Your task to perform on an android device: toggle priority inbox in the gmail app Image 0: 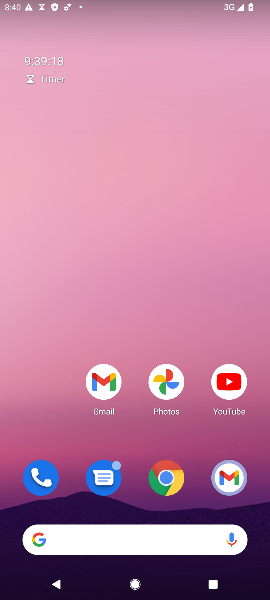
Step 0: drag from (209, 340) to (147, 44)
Your task to perform on an android device: toggle priority inbox in the gmail app Image 1: 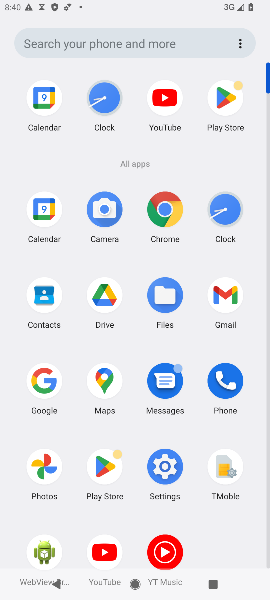
Step 1: click (211, 287)
Your task to perform on an android device: toggle priority inbox in the gmail app Image 2: 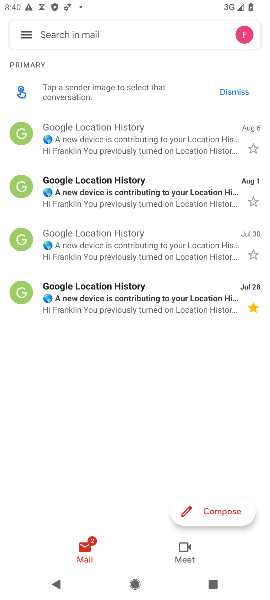
Step 2: click (19, 38)
Your task to perform on an android device: toggle priority inbox in the gmail app Image 3: 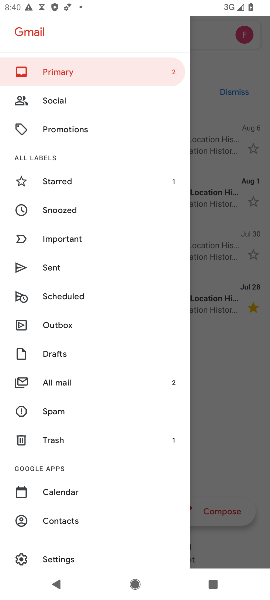
Step 3: click (68, 557)
Your task to perform on an android device: toggle priority inbox in the gmail app Image 4: 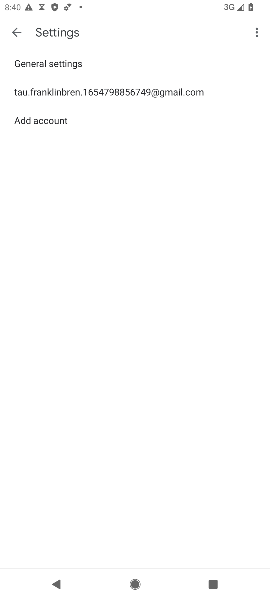
Step 4: click (98, 93)
Your task to perform on an android device: toggle priority inbox in the gmail app Image 5: 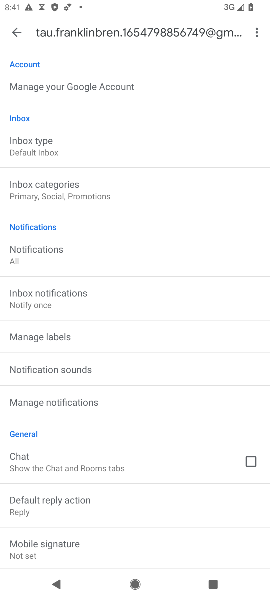
Step 5: click (89, 137)
Your task to perform on an android device: toggle priority inbox in the gmail app Image 6: 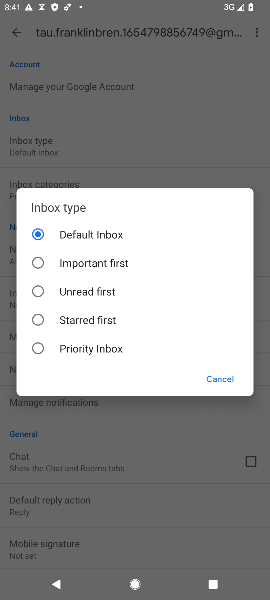
Step 6: click (77, 349)
Your task to perform on an android device: toggle priority inbox in the gmail app Image 7: 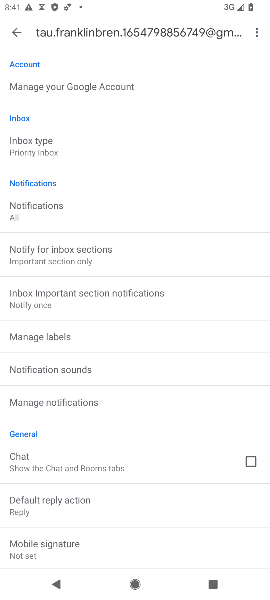
Step 7: task complete